Your task to perform on an android device: turn on the 24-hour format for clock Image 0: 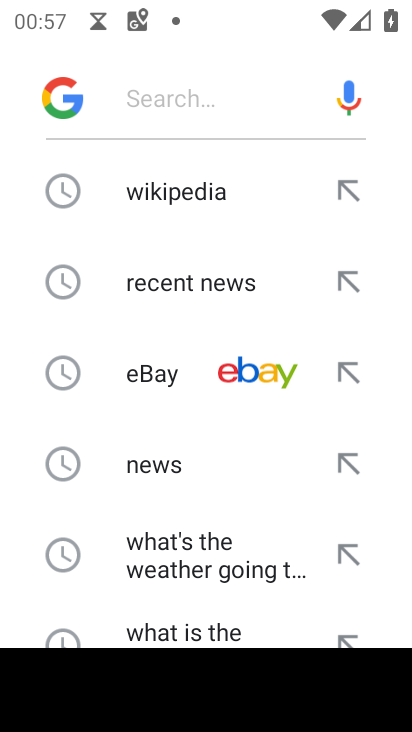
Step 0: press home button
Your task to perform on an android device: turn on the 24-hour format for clock Image 1: 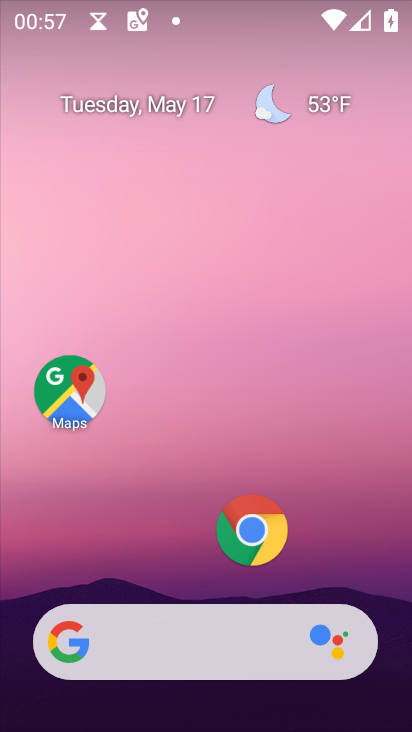
Step 1: drag from (311, 499) to (289, 178)
Your task to perform on an android device: turn on the 24-hour format for clock Image 2: 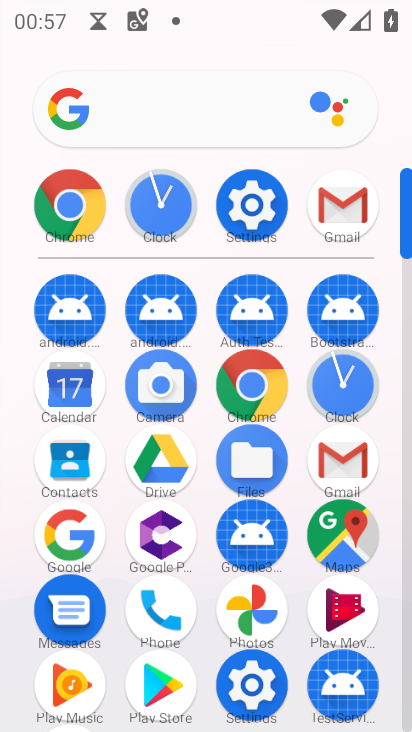
Step 2: click (151, 208)
Your task to perform on an android device: turn on the 24-hour format for clock Image 3: 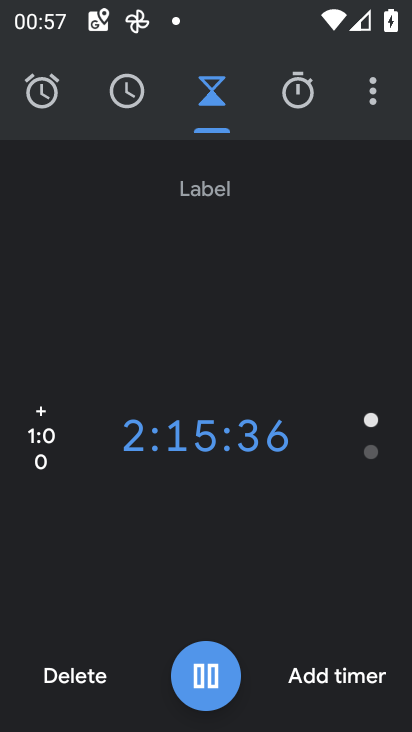
Step 3: click (368, 97)
Your task to perform on an android device: turn on the 24-hour format for clock Image 4: 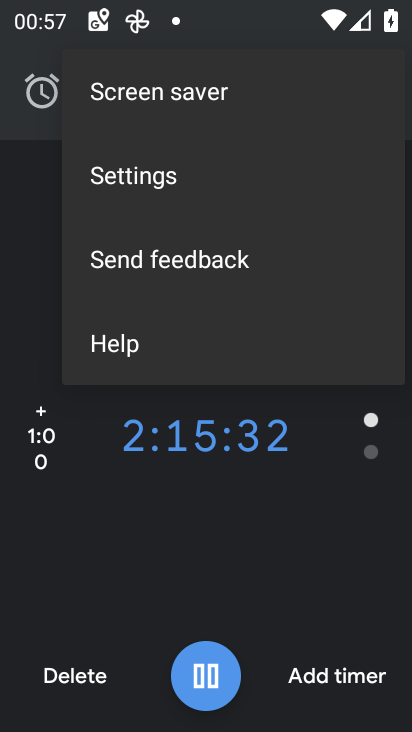
Step 4: click (17, 217)
Your task to perform on an android device: turn on the 24-hour format for clock Image 5: 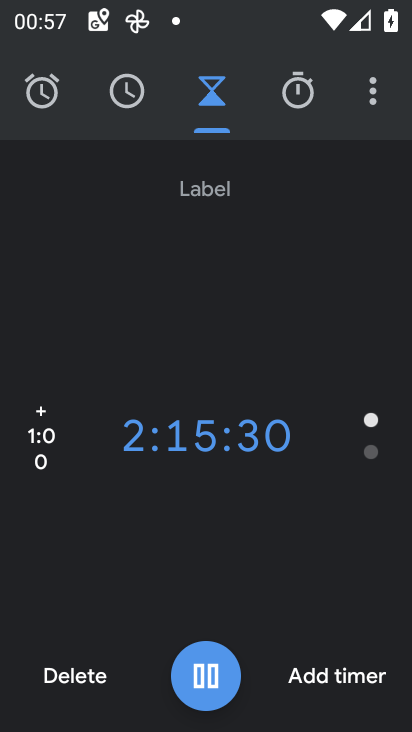
Step 5: click (125, 104)
Your task to perform on an android device: turn on the 24-hour format for clock Image 6: 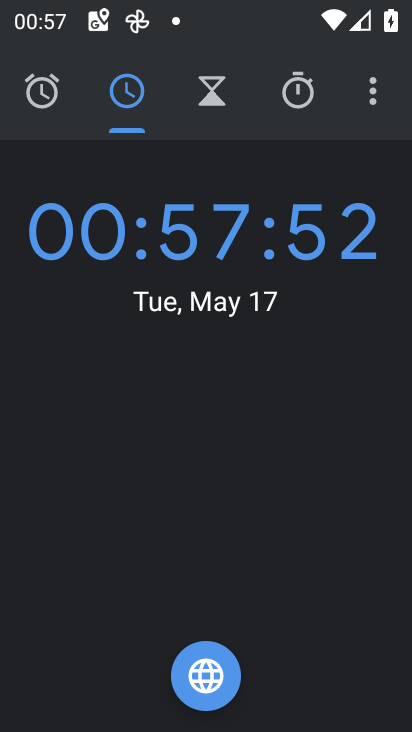
Step 6: click (38, 86)
Your task to perform on an android device: turn on the 24-hour format for clock Image 7: 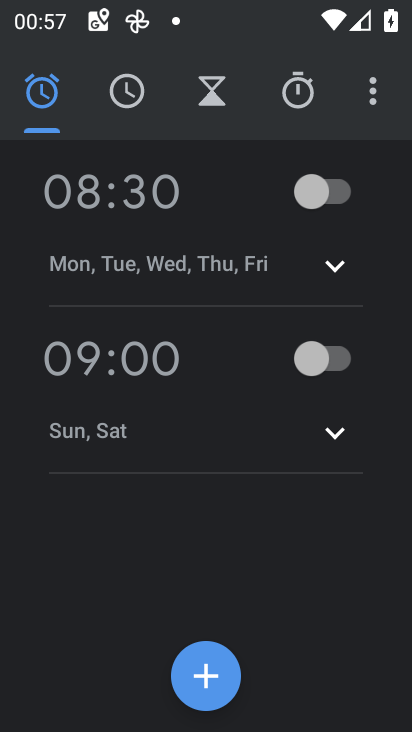
Step 7: click (121, 97)
Your task to perform on an android device: turn on the 24-hour format for clock Image 8: 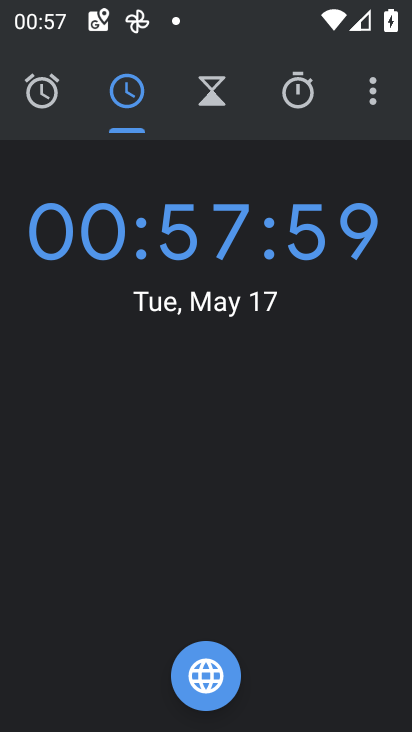
Step 8: click (196, 657)
Your task to perform on an android device: turn on the 24-hour format for clock Image 9: 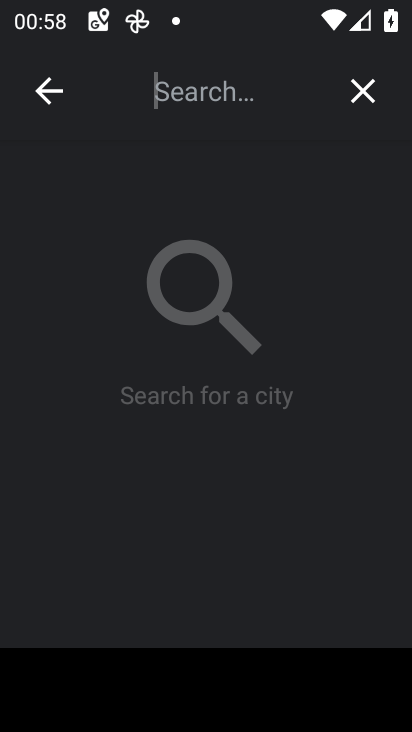
Step 9: task complete